Your task to perform on an android device: turn on priority inbox in the gmail app Image 0: 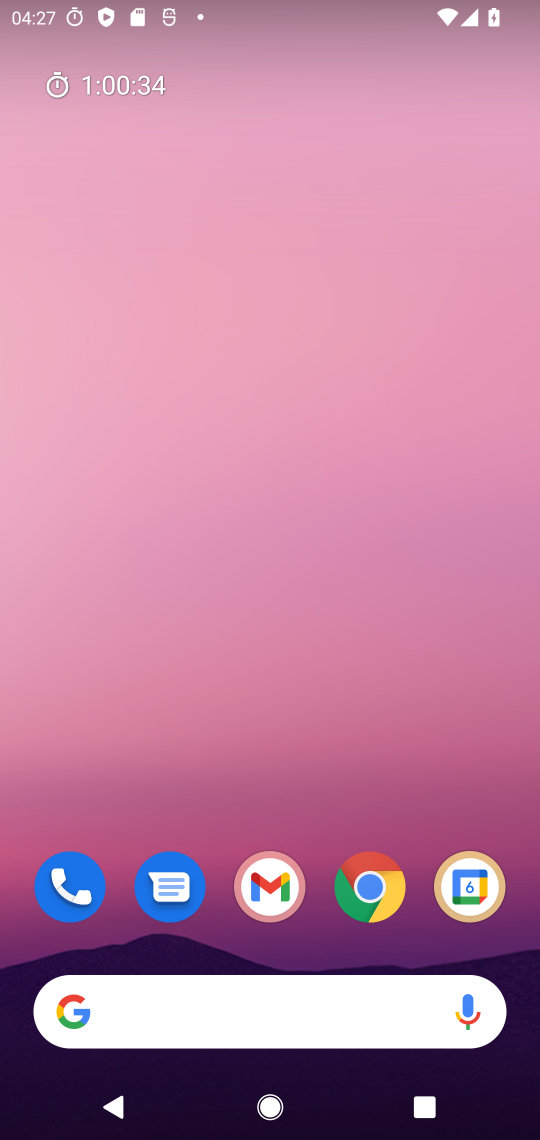
Step 0: press home button
Your task to perform on an android device: turn on priority inbox in the gmail app Image 1: 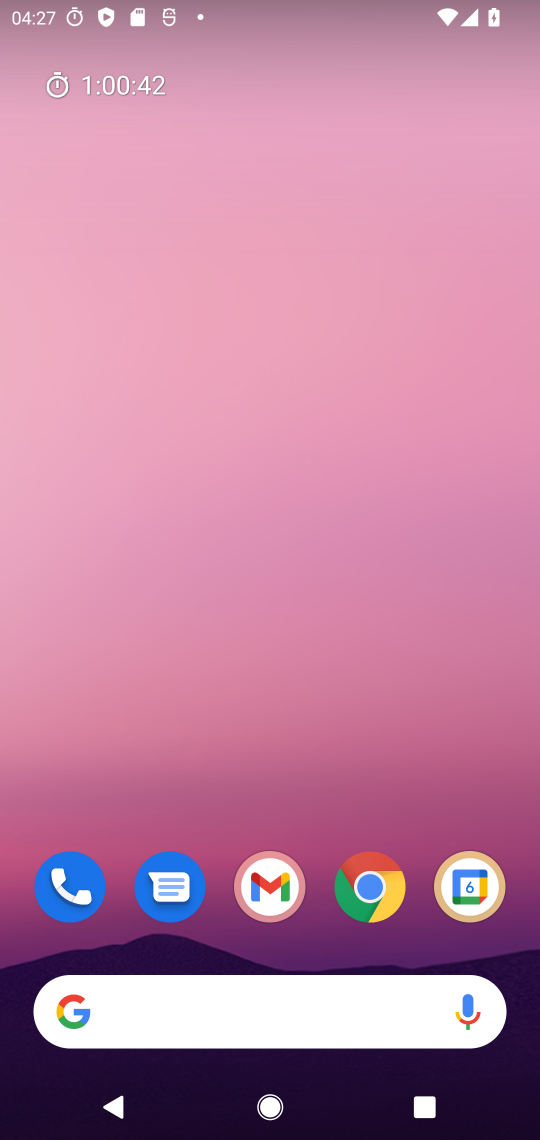
Step 1: drag from (368, 792) to (387, 214)
Your task to perform on an android device: turn on priority inbox in the gmail app Image 2: 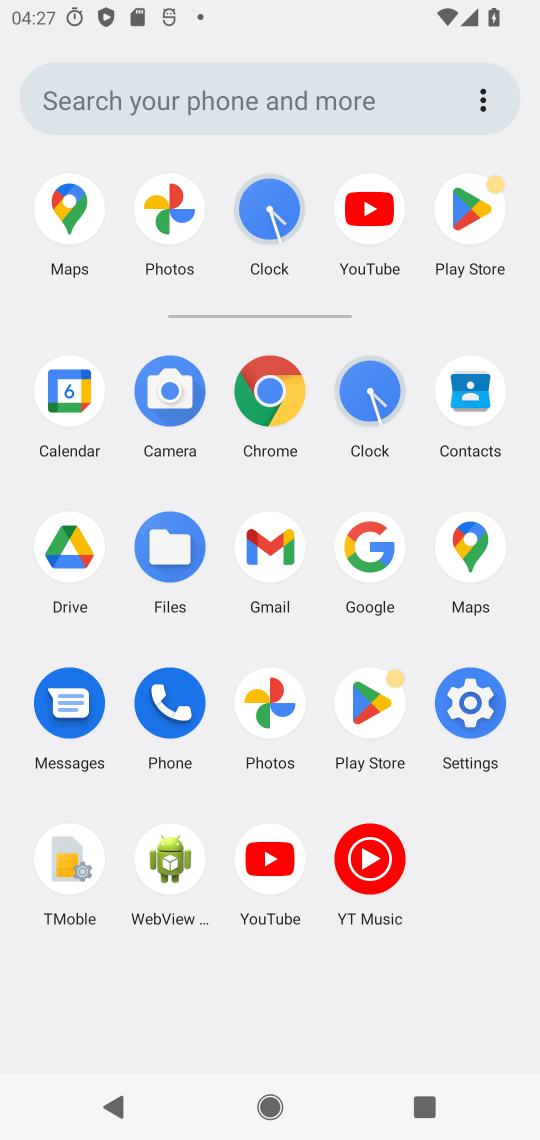
Step 2: click (270, 561)
Your task to perform on an android device: turn on priority inbox in the gmail app Image 3: 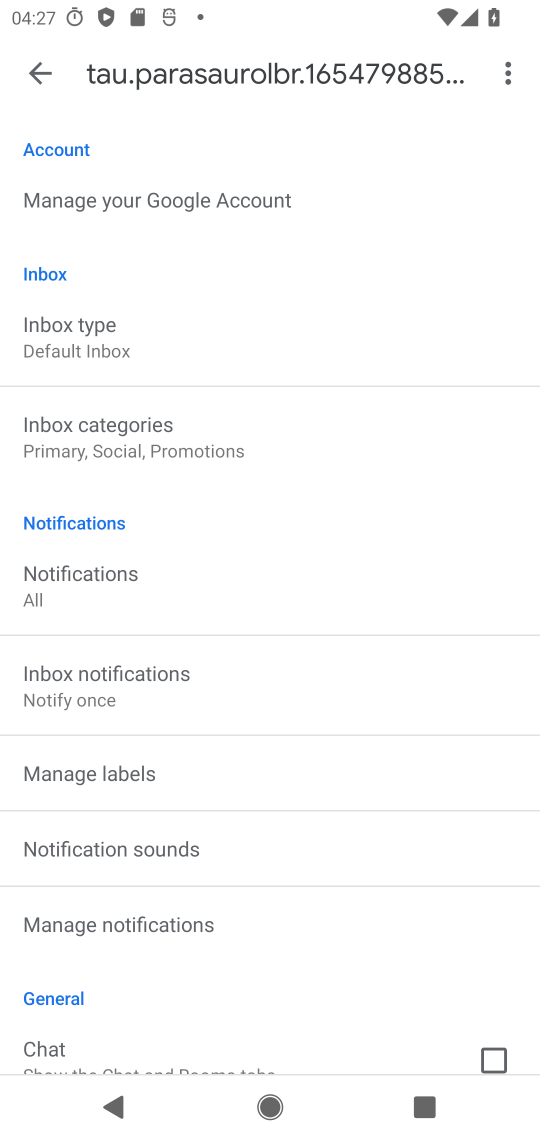
Step 3: drag from (432, 731) to (429, 571)
Your task to perform on an android device: turn on priority inbox in the gmail app Image 4: 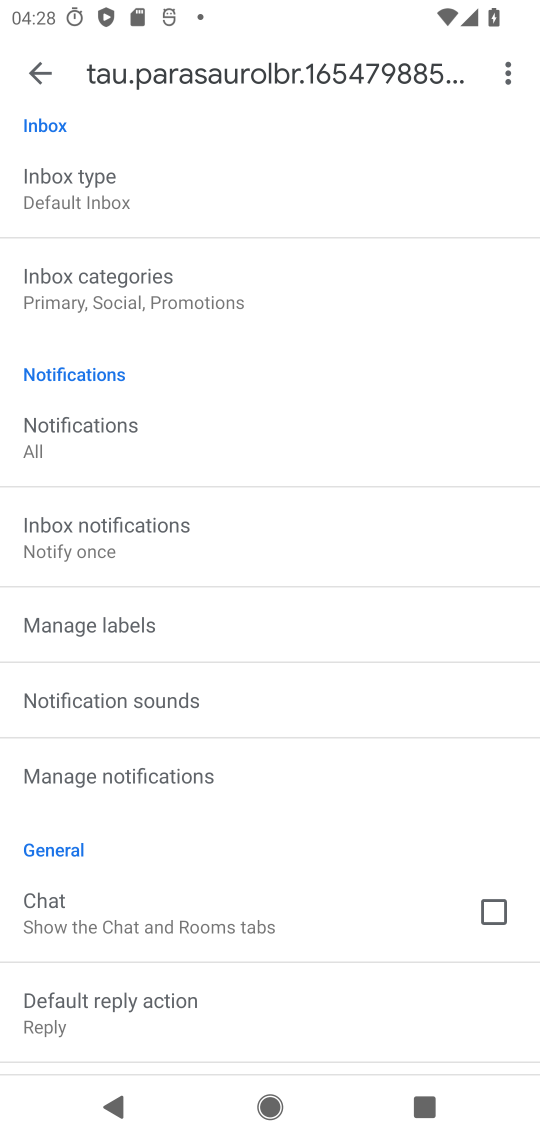
Step 4: drag from (431, 714) to (458, 518)
Your task to perform on an android device: turn on priority inbox in the gmail app Image 5: 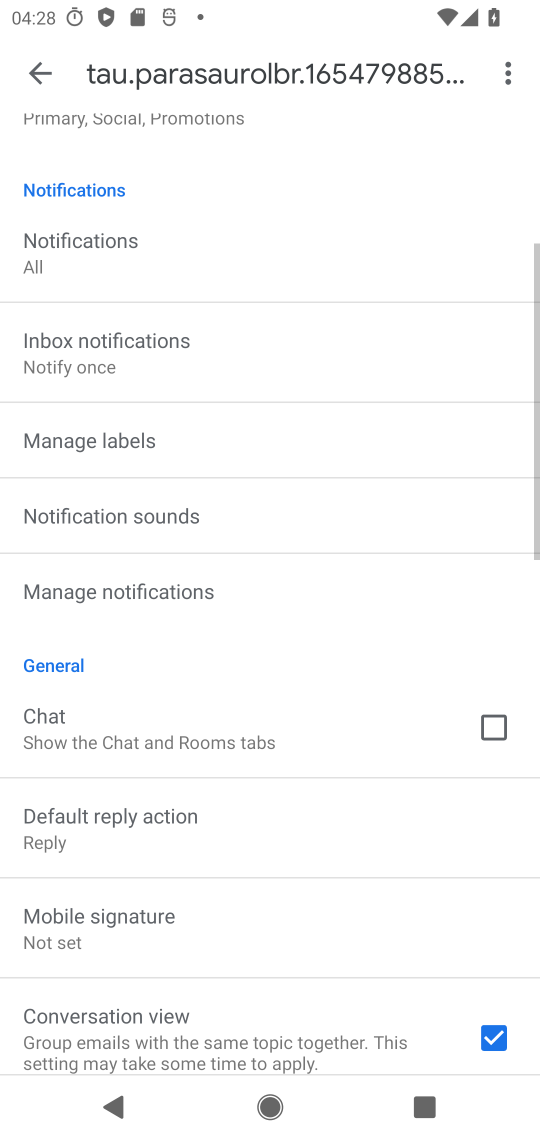
Step 5: drag from (475, 684) to (510, 504)
Your task to perform on an android device: turn on priority inbox in the gmail app Image 6: 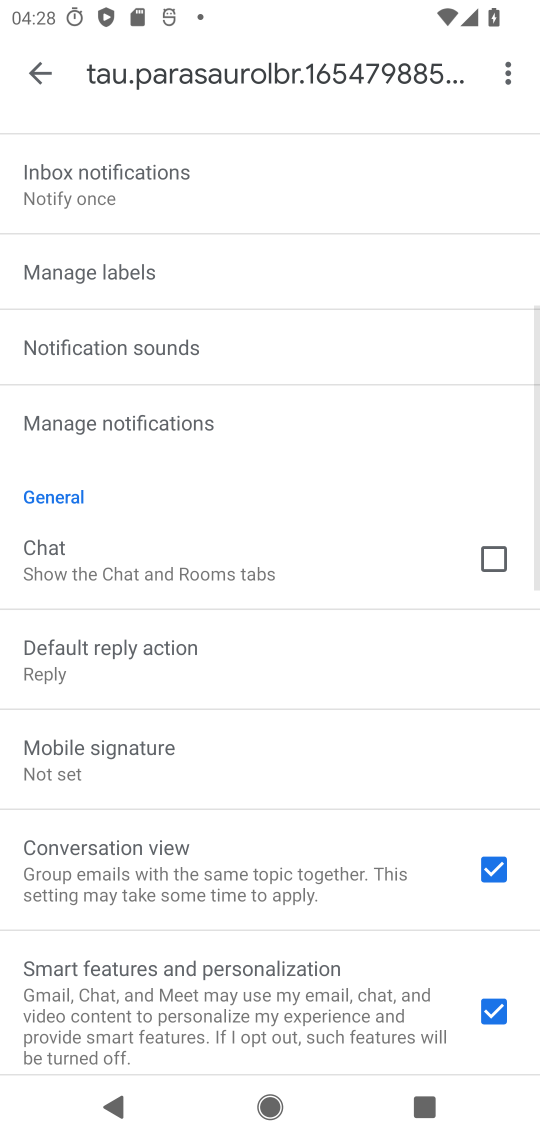
Step 6: drag from (493, 670) to (513, 502)
Your task to perform on an android device: turn on priority inbox in the gmail app Image 7: 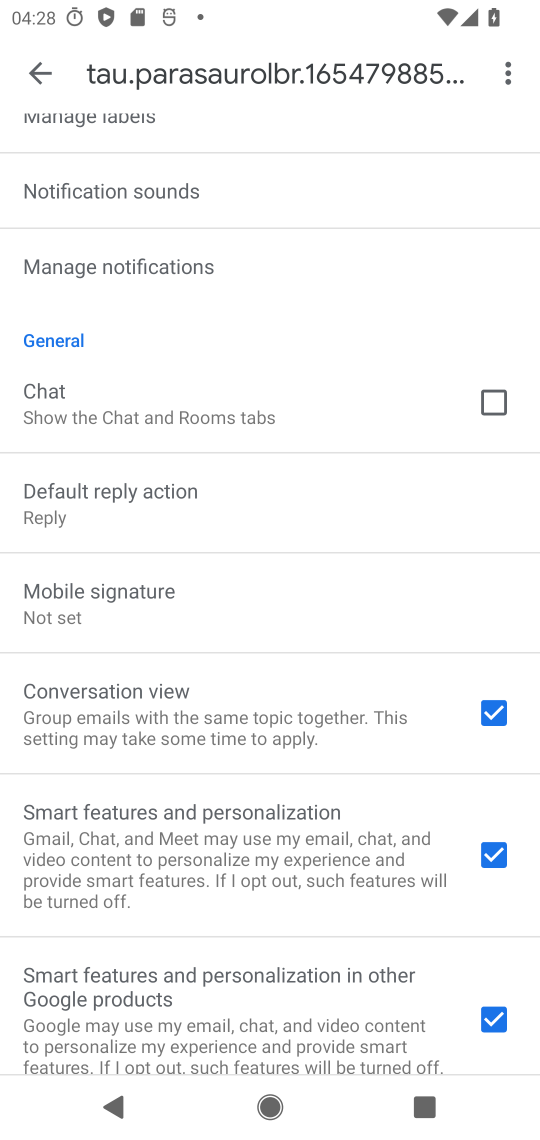
Step 7: drag from (381, 294) to (380, 528)
Your task to perform on an android device: turn on priority inbox in the gmail app Image 8: 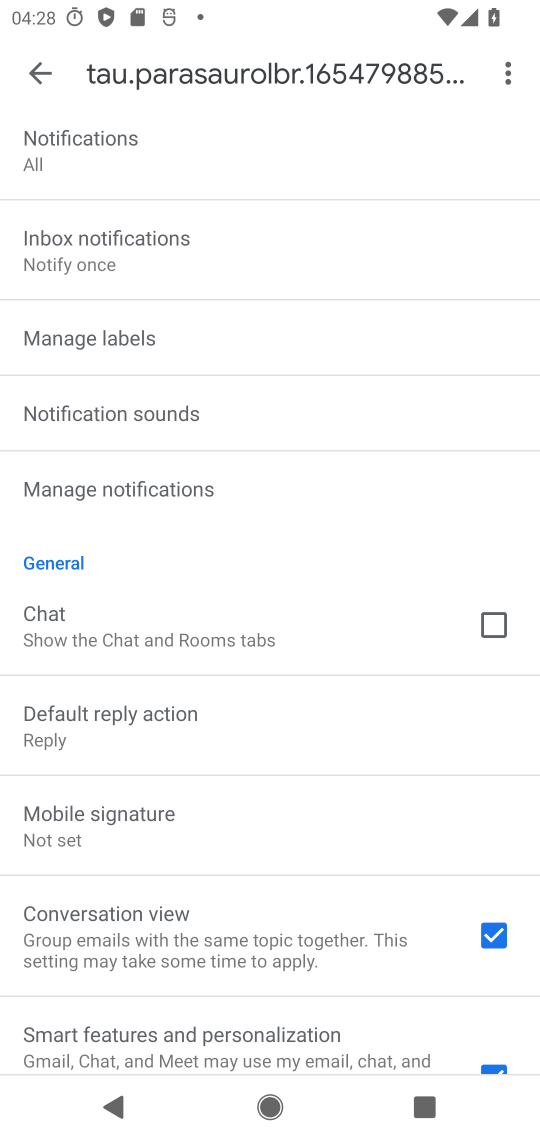
Step 8: drag from (385, 244) to (396, 501)
Your task to perform on an android device: turn on priority inbox in the gmail app Image 9: 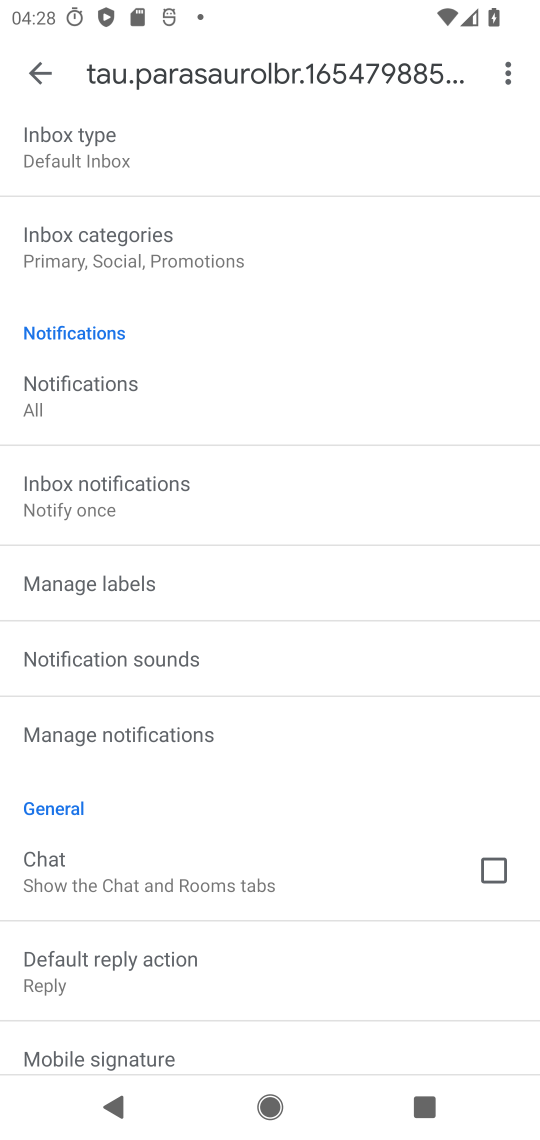
Step 9: drag from (388, 278) to (400, 442)
Your task to perform on an android device: turn on priority inbox in the gmail app Image 10: 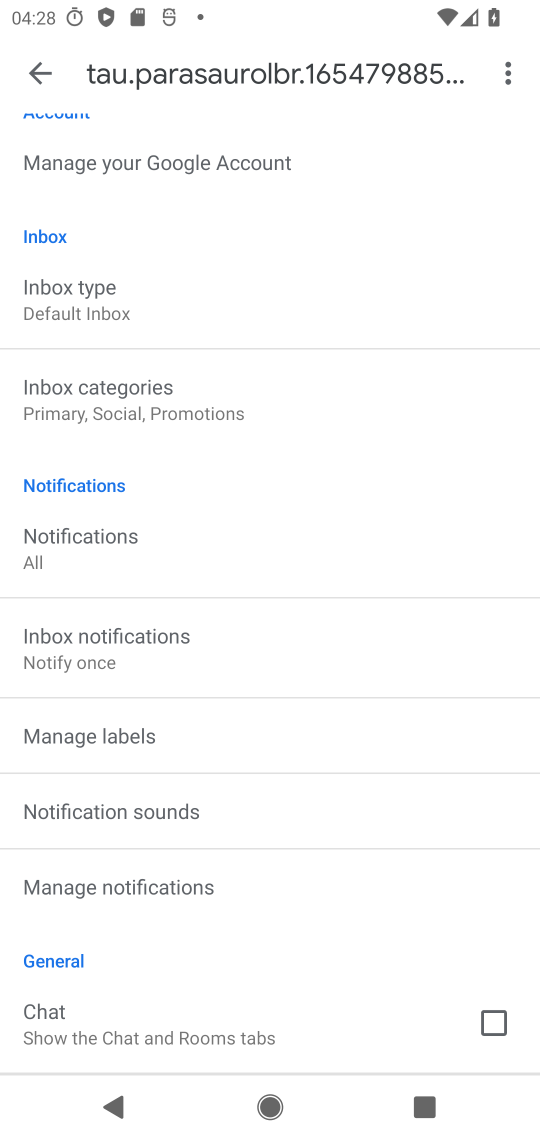
Step 10: drag from (406, 209) to (397, 471)
Your task to perform on an android device: turn on priority inbox in the gmail app Image 11: 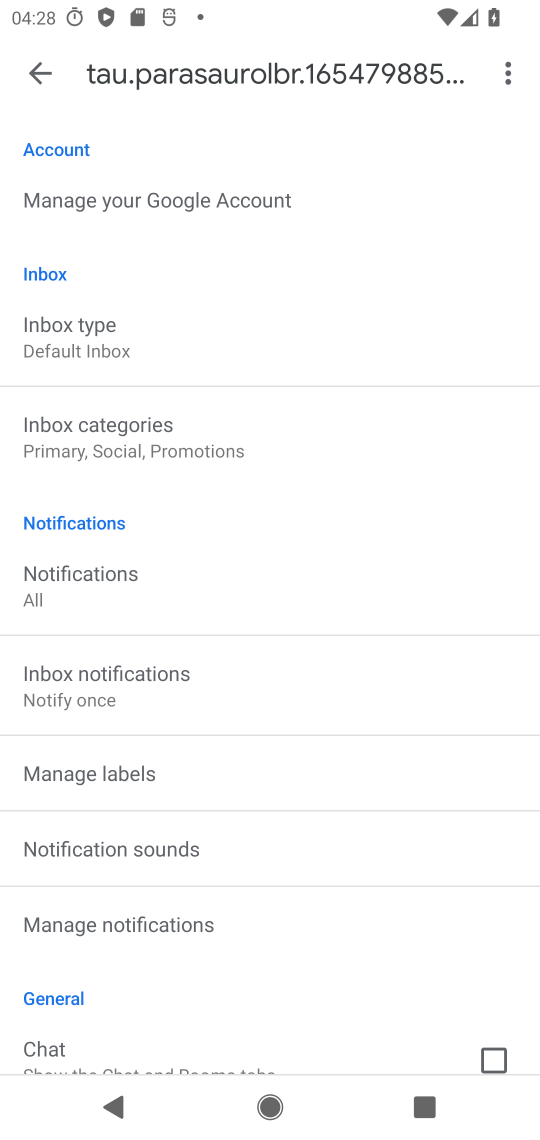
Step 11: click (172, 334)
Your task to perform on an android device: turn on priority inbox in the gmail app Image 12: 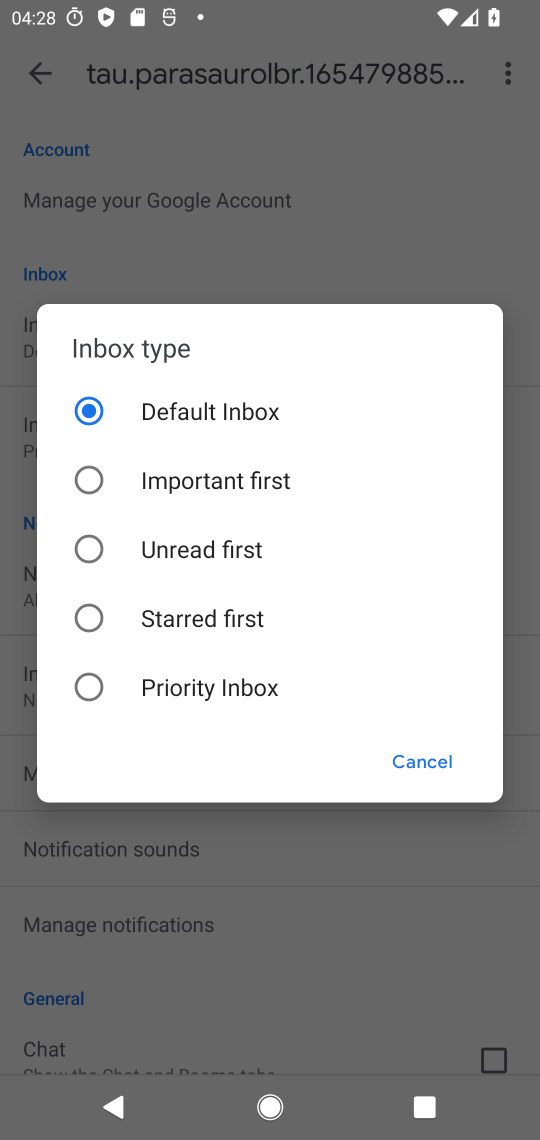
Step 12: click (221, 679)
Your task to perform on an android device: turn on priority inbox in the gmail app Image 13: 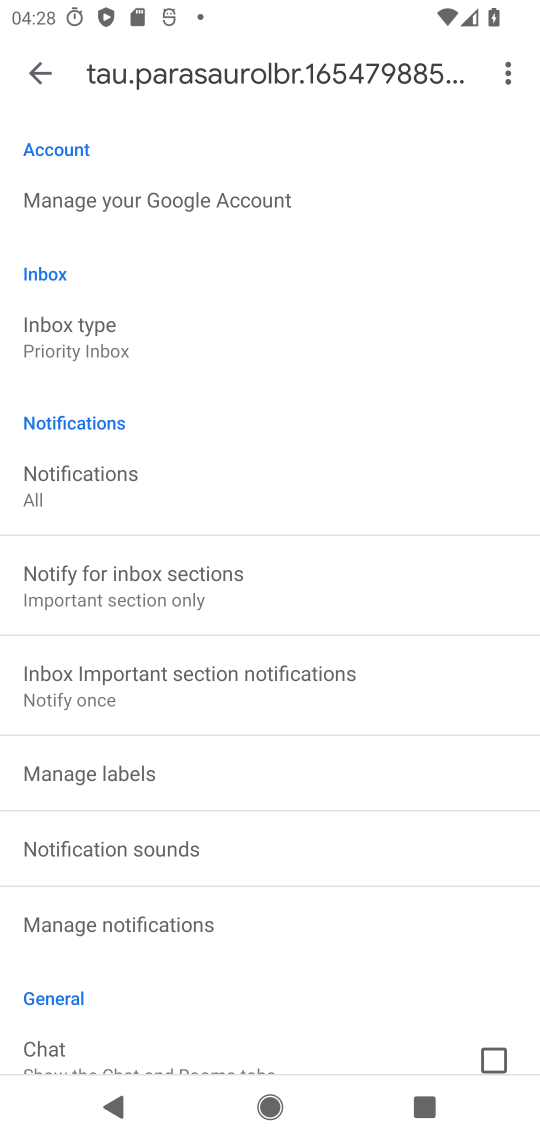
Step 13: task complete